Your task to perform on an android device: refresh tabs in the chrome app Image 0: 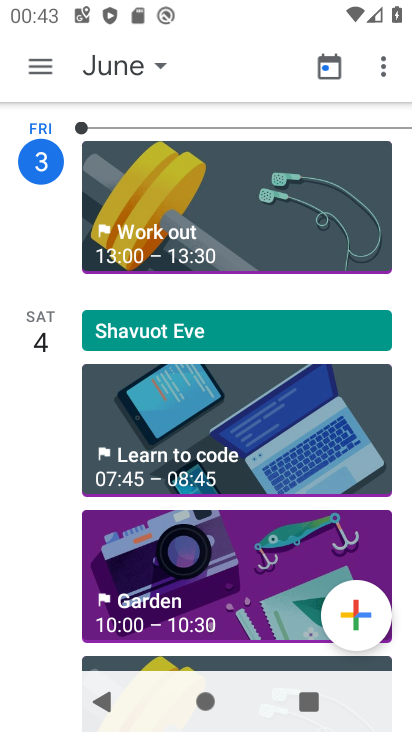
Step 0: press home button
Your task to perform on an android device: refresh tabs in the chrome app Image 1: 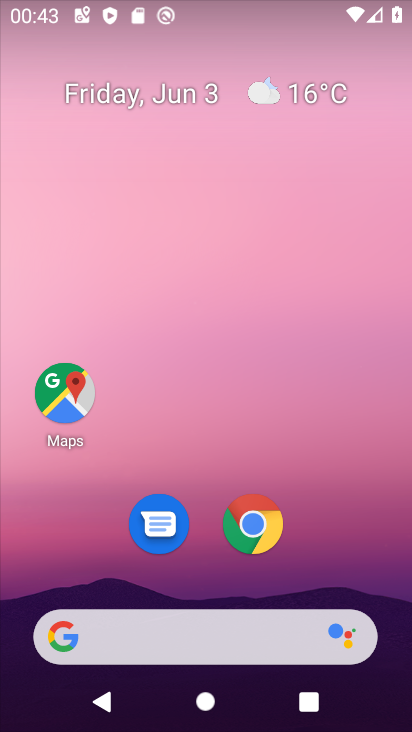
Step 1: click (251, 525)
Your task to perform on an android device: refresh tabs in the chrome app Image 2: 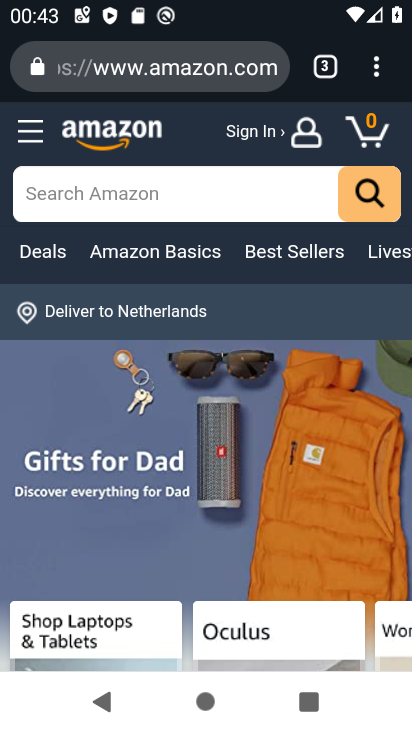
Step 2: click (373, 67)
Your task to perform on an android device: refresh tabs in the chrome app Image 3: 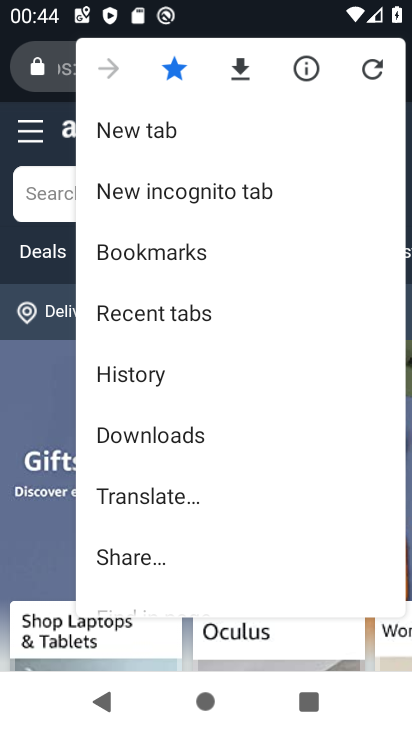
Step 3: click (373, 67)
Your task to perform on an android device: refresh tabs in the chrome app Image 4: 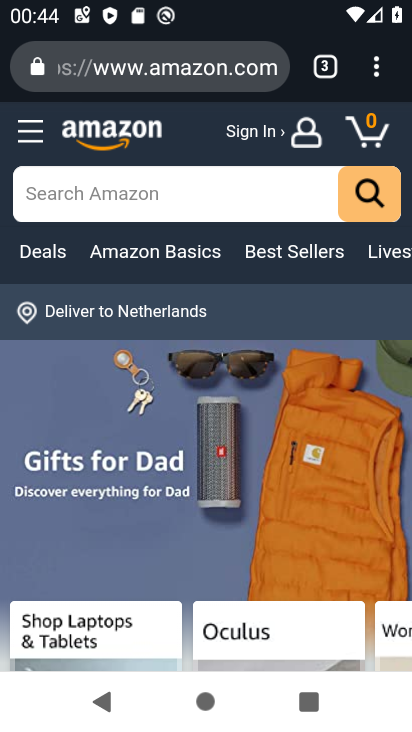
Step 4: task complete